Your task to perform on an android device: turn on the 12-hour format for clock Image 0: 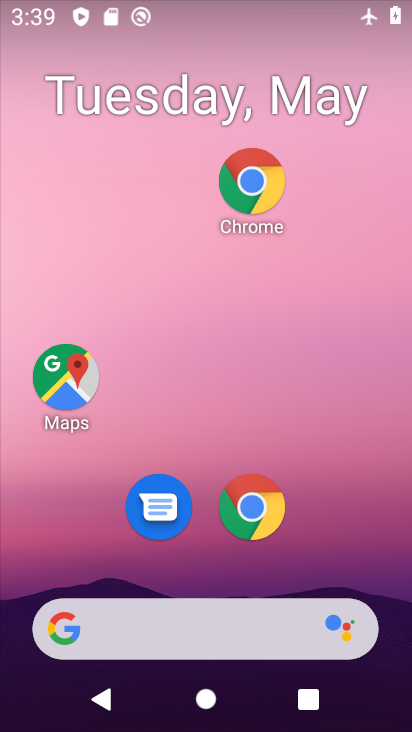
Step 0: drag from (371, 539) to (334, 244)
Your task to perform on an android device: turn on the 12-hour format for clock Image 1: 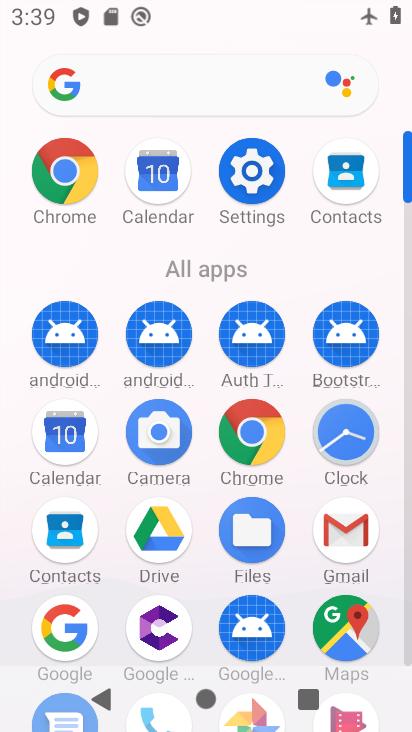
Step 1: click (379, 427)
Your task to perform on an android device: turn on the 12-hour format for clock Image 2: 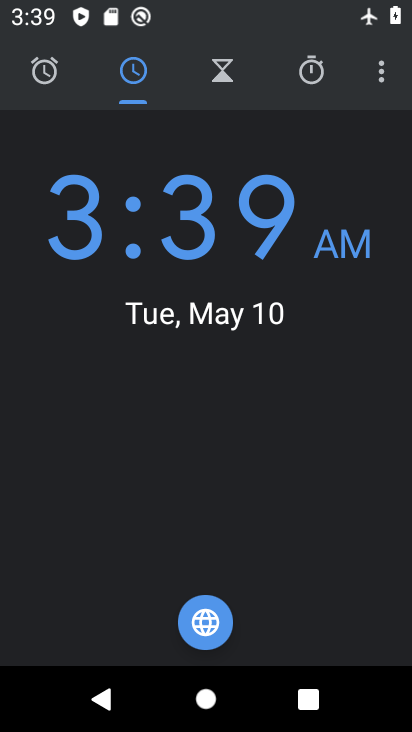
Step 2: click (377, 79)
Your task to perform on an android device: turn on the 12-hour format for clock Image 3: 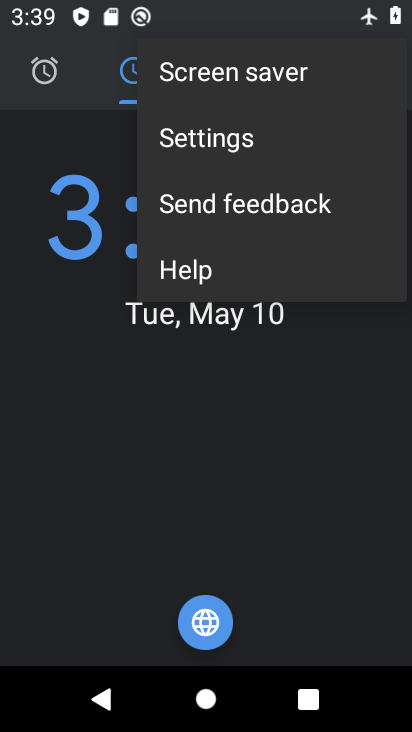
Step 3: click (259, 139)
Your task to perform on an android device: turn on the 12-hour format for clock Image 4: 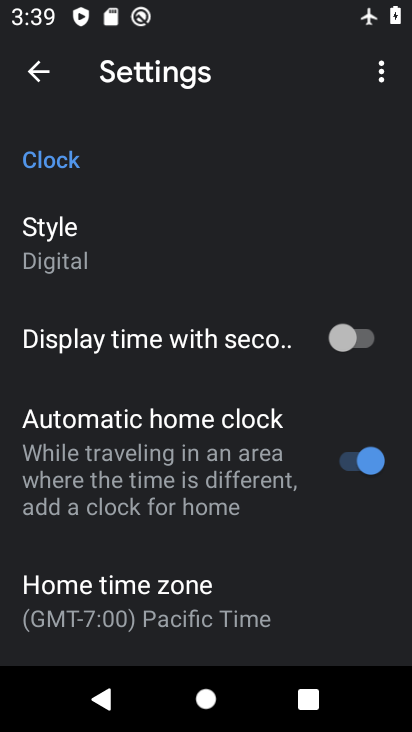
Step 4: drag from (212, 524) to (232, 200)
Your task to perform on an android device: turn on the 12-hour format for clock Image 5: 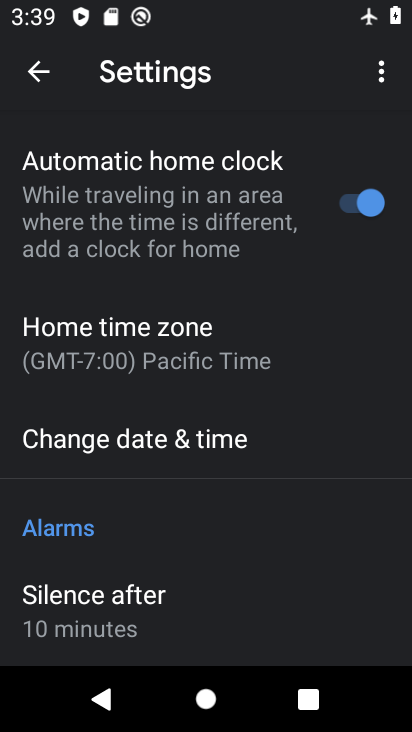
Step 5: click (166, 438)
Your task to perform on an android device: turn on the 12-hour format for clock Image 6: 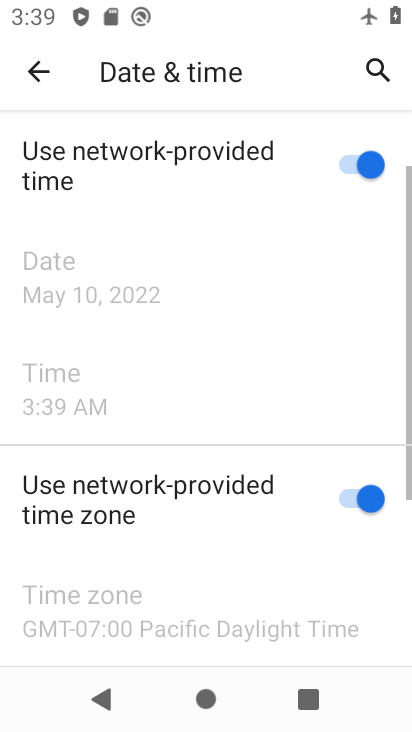
Step 6: drag from (209, 570) to (215, 185)
Your task to perform on an android device: turn on the 12-hour format for clock Image 7: 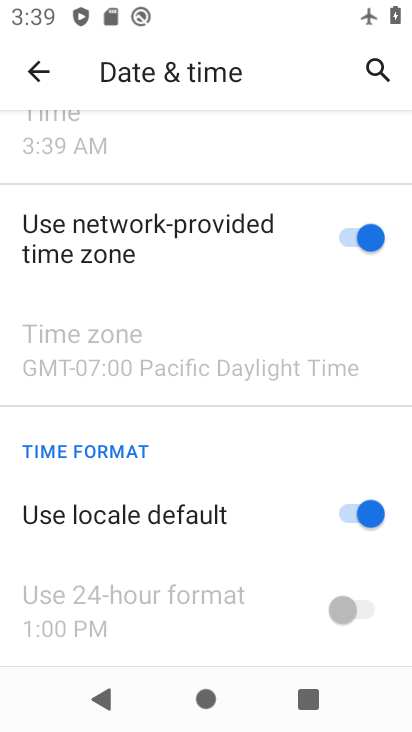
Step 7: click (361, 515)
Your task to perform on an android device: turn on the 12-hour format for clock Image 8: 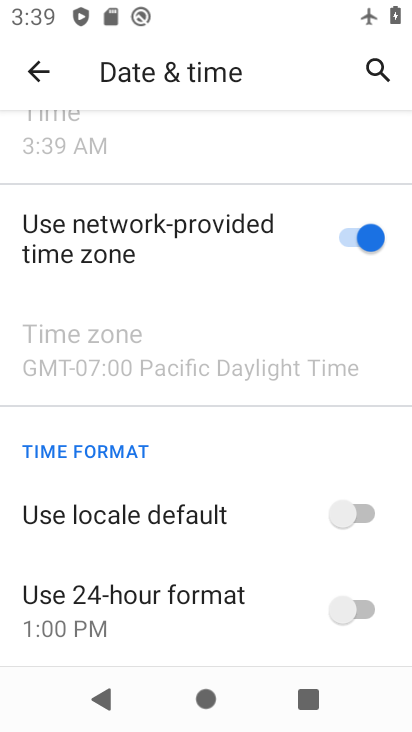
Step 8: task complete